Your task to perform on an android device: Open display settings Image 0: 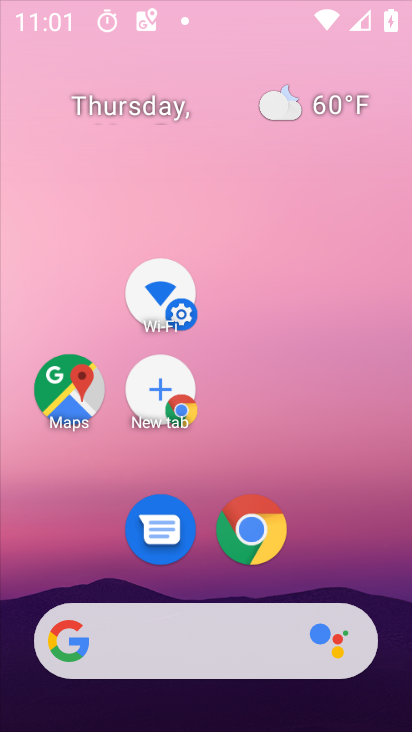
Step 0: click (220, 76)
Your task to perform on an android device: Open display settings Image 1: 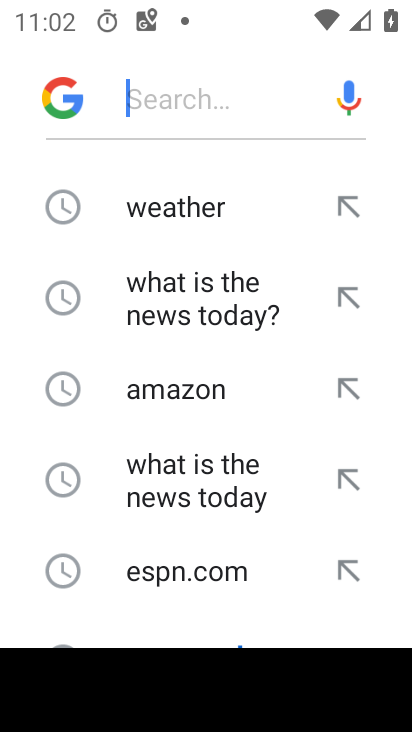
Step 1: press home button
Your task to perform on an android device: Open display settings Image 2: 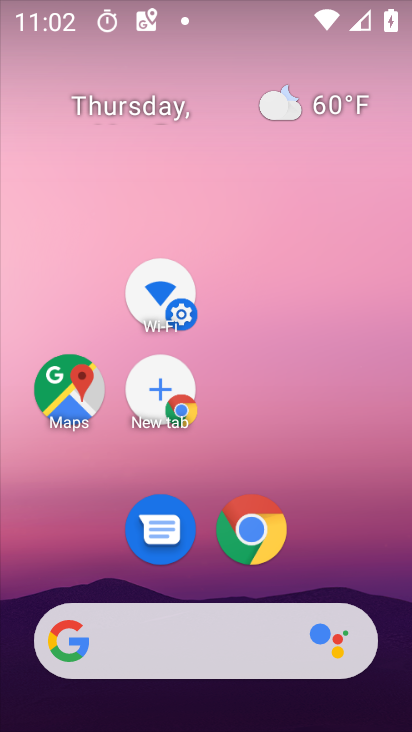
Step 2: drag from (343, 538) to (210, 128)
Your task to perform on an android device: Open display settings Image 3: 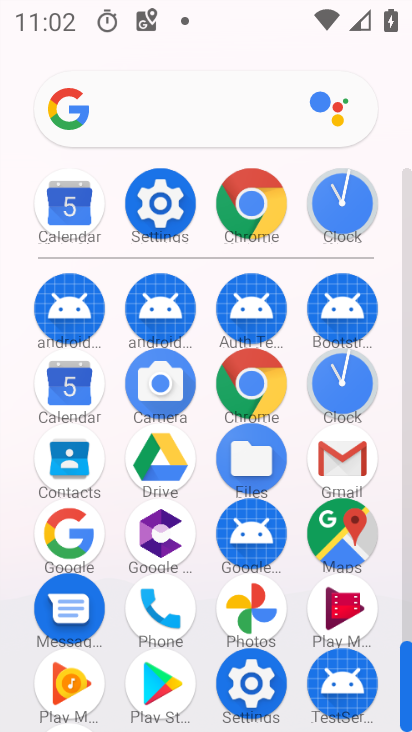
Step 3: click (247, 682)
Your task to perform on an android device: Open display settings Image 4: 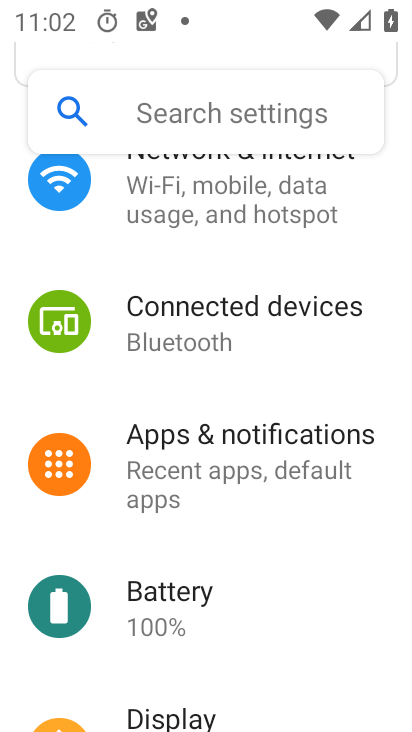
Step 4: drag from (216, 601) to (192, 78)
Your task to perform on an android device: Open display settings Image 5: 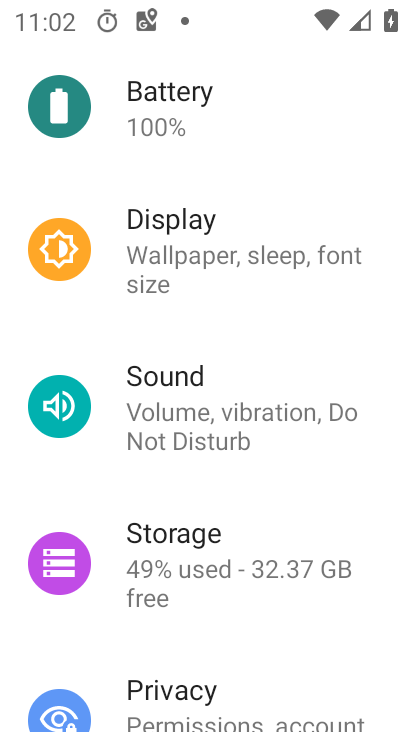
Step 5: click (158, 252)
Your task to perform on an android device: Open display settings Image 6: 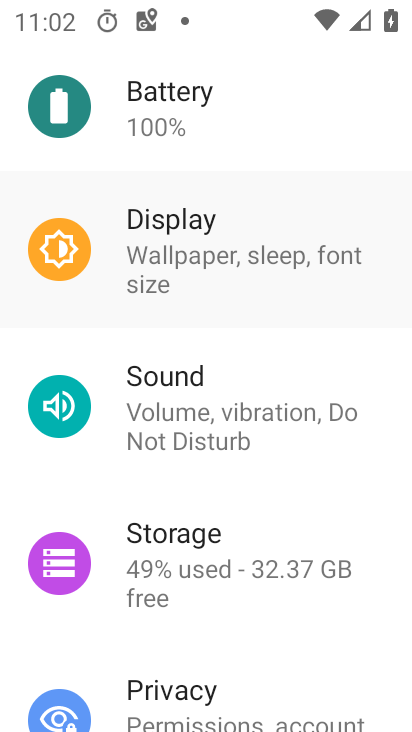
Step 6: click (158, 252)
Your task to perform on an android device: Open display settings Image 7: 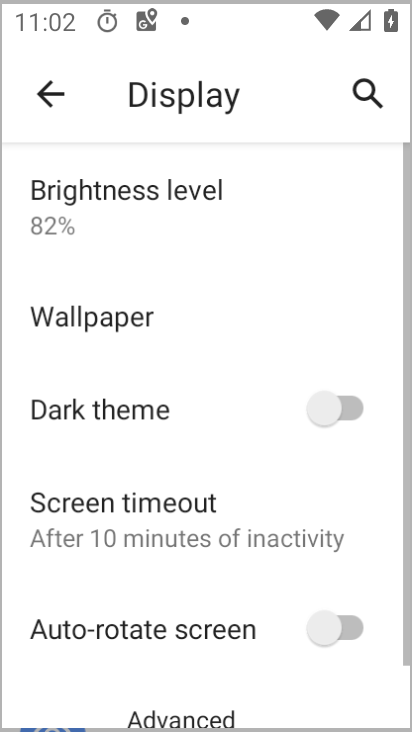
Step 7: click (159, 252)
Your task to perform on an android device: Open display settings Image 8: 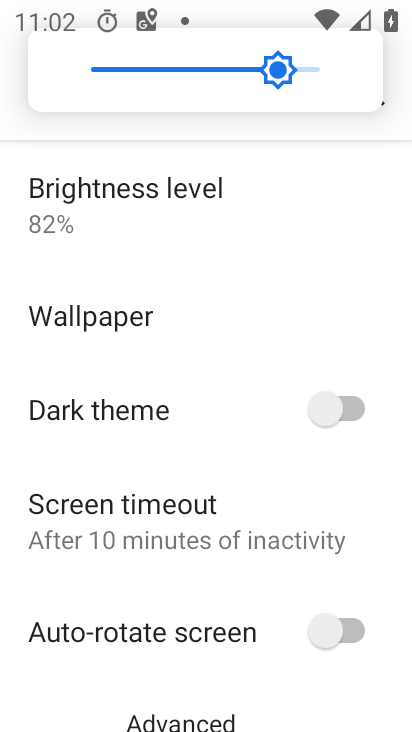
Step 8: task complete